Your task to perform on an android device: Go to calendar. Show me events next week Image 0: 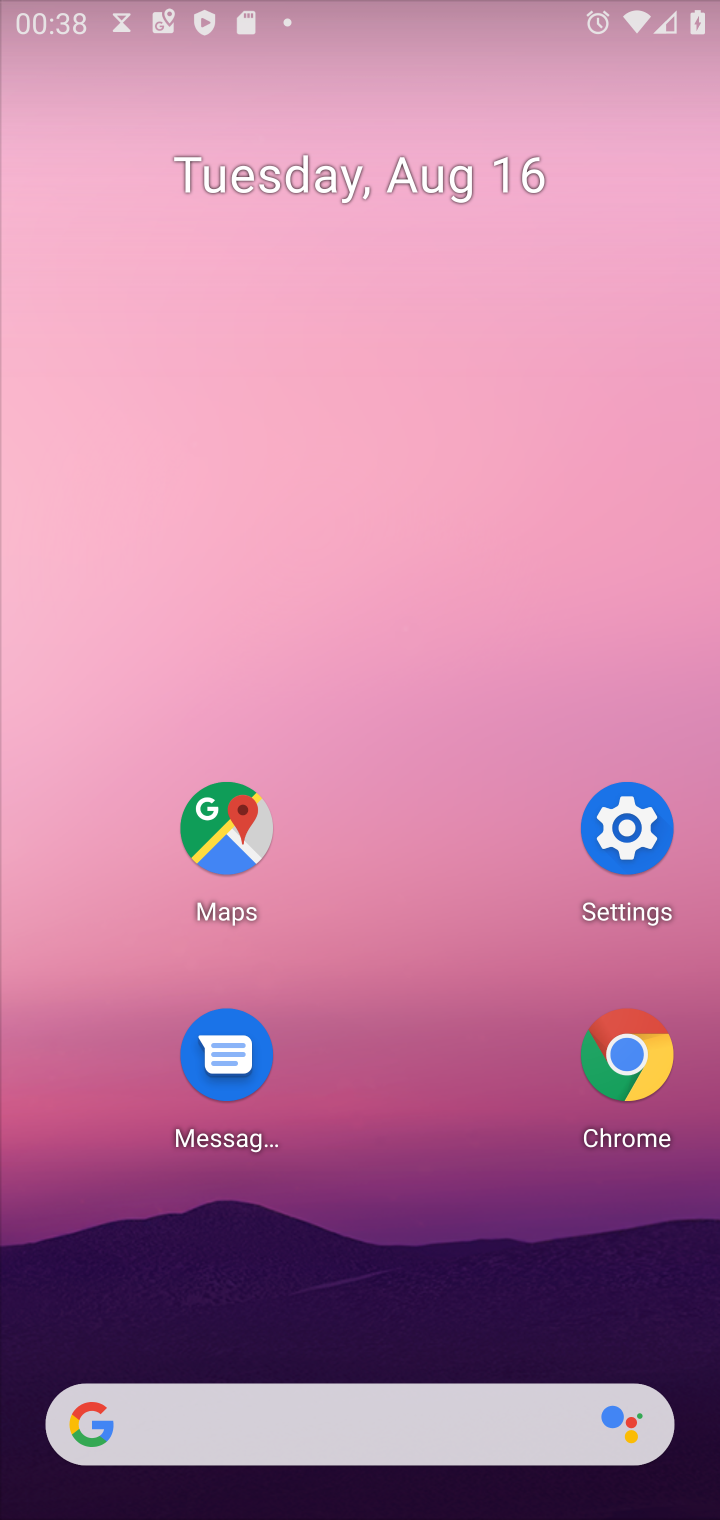
Step 0: press home button
Your task to perform on an android device: Go to calendar. Show me events next week Image 1: 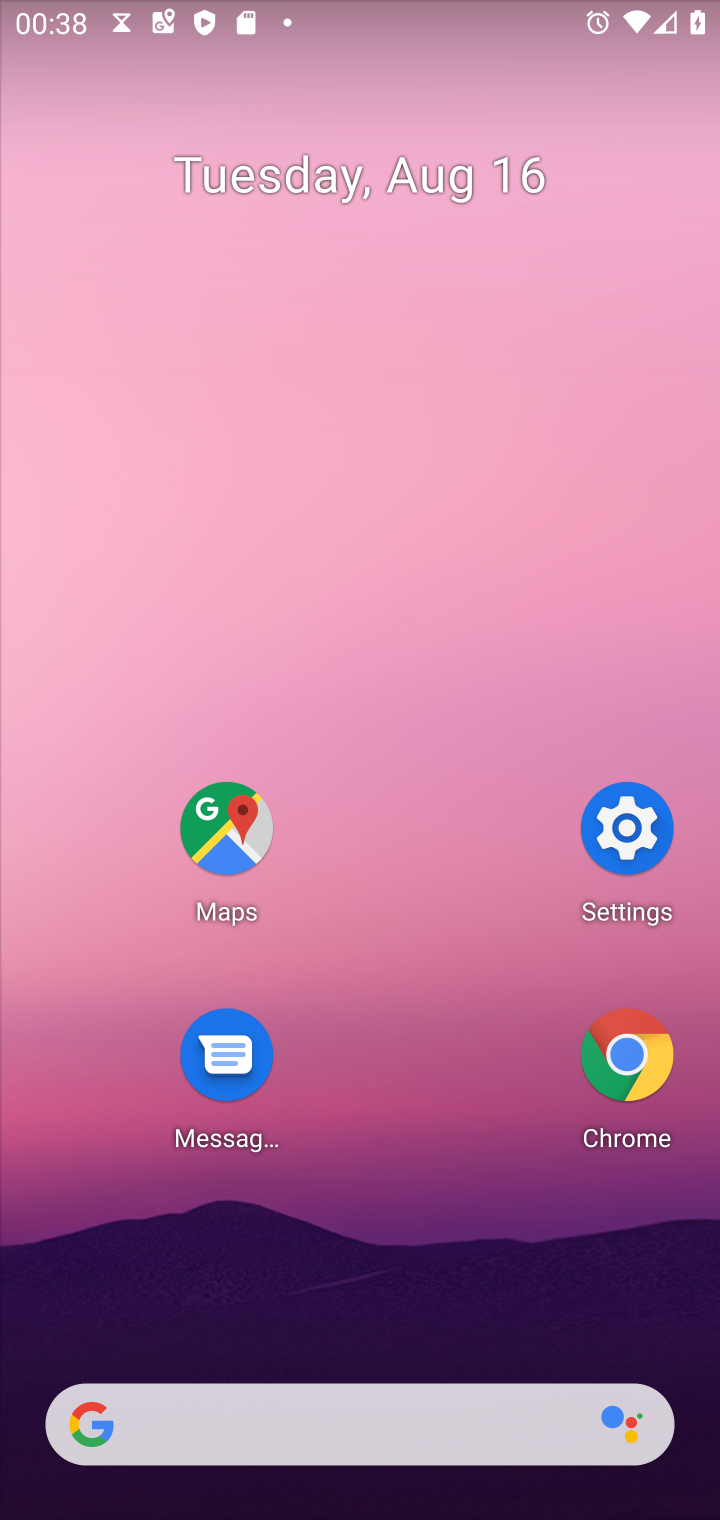
Step 1: drag from (332, 1262) to (520, 360)
Your task to perform on an android device: Go to calendar. Show me events next week Image 2: 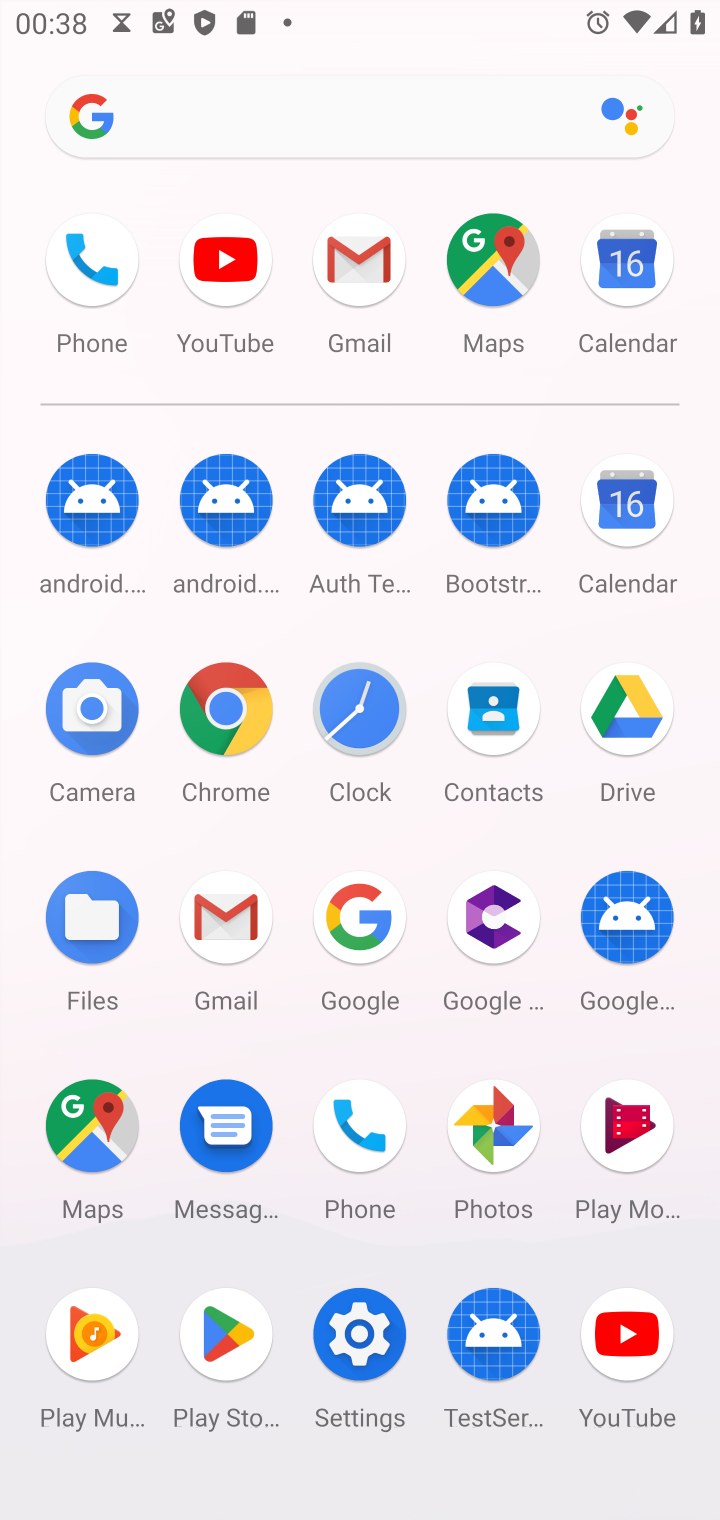
Step 2: click (616, 515)
Your task to perform on an android device: Go to calendar. Show me events next week Image 3: 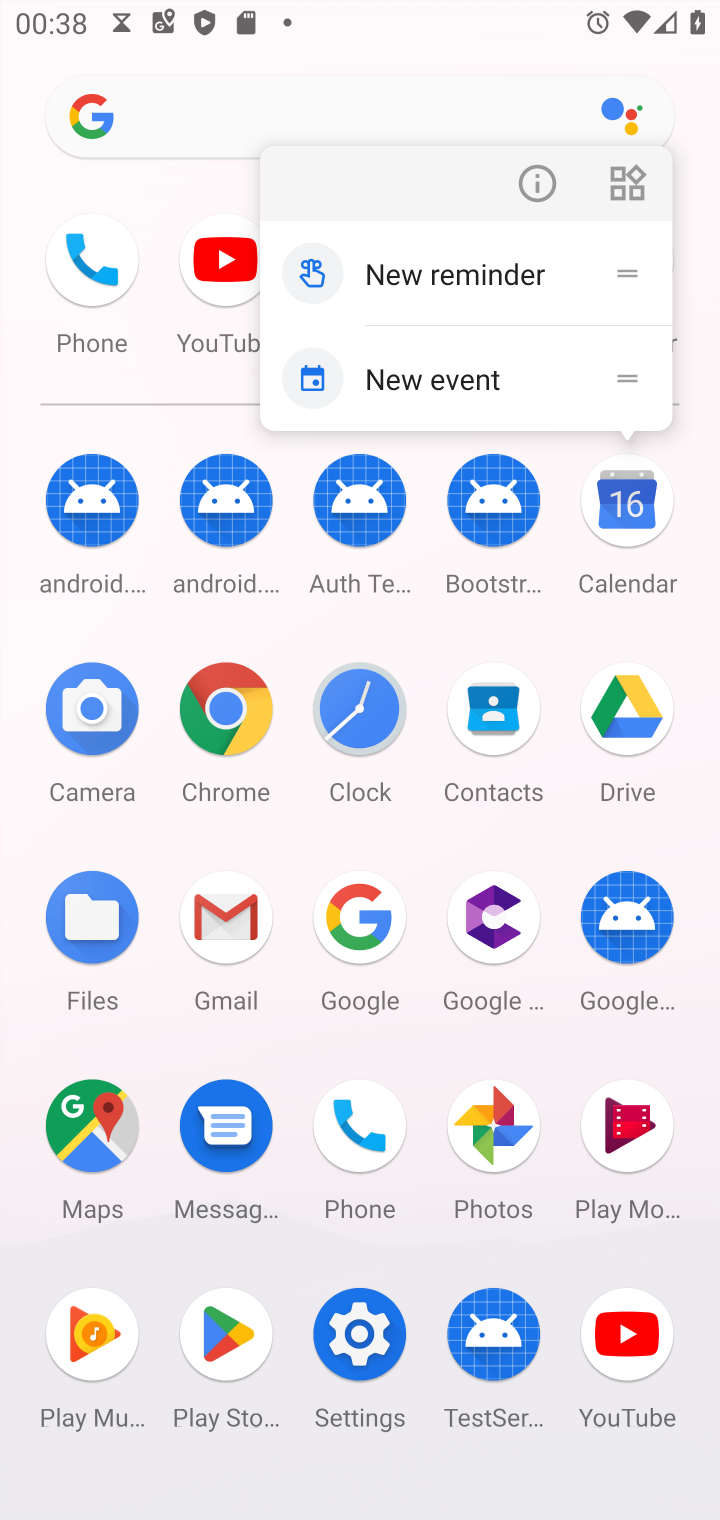
Step 3: click (616, 515)
Your task to perform on an android device: Go to calendar. Show me events next week Image 4: 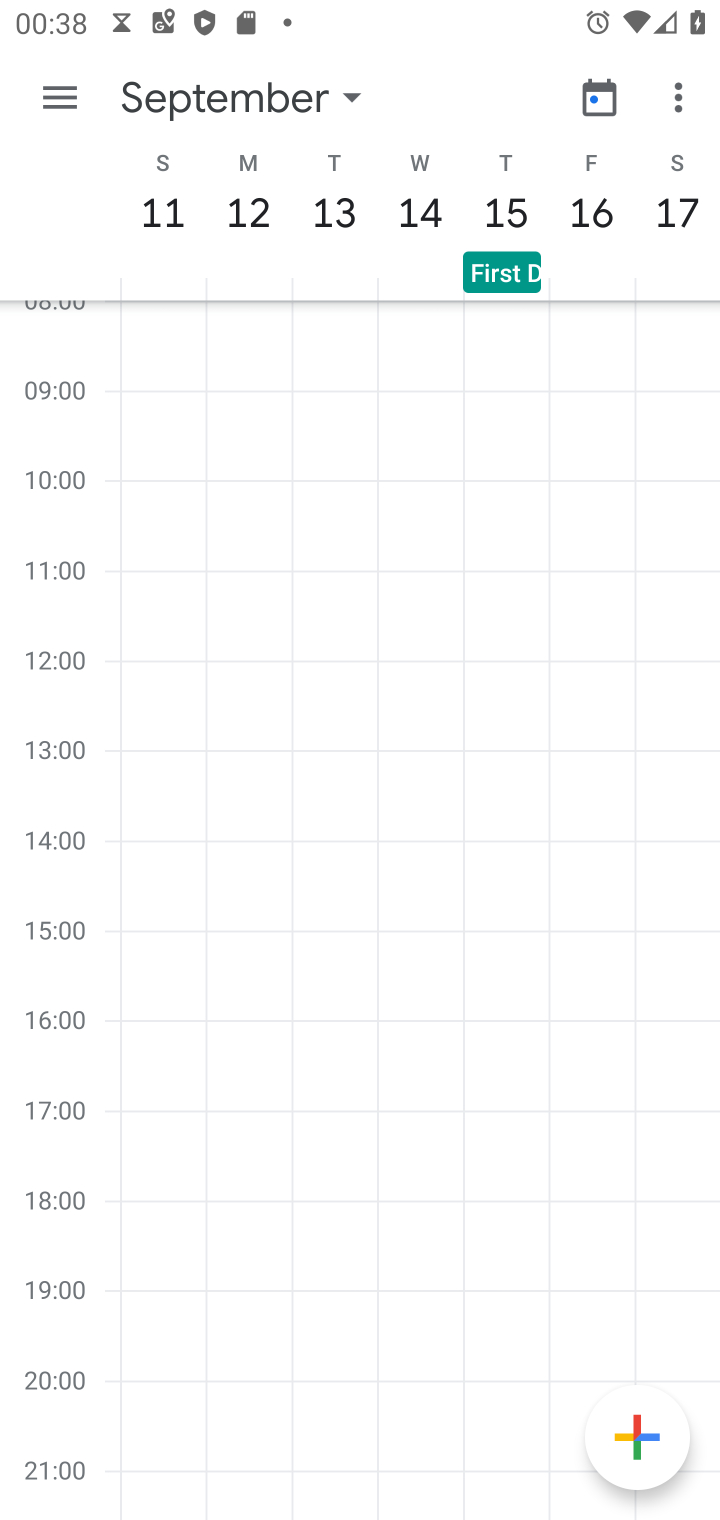
Step 4: click (221, 138)
Your task to perform on an android device: Go to calendar. Show me events next week Image 5: 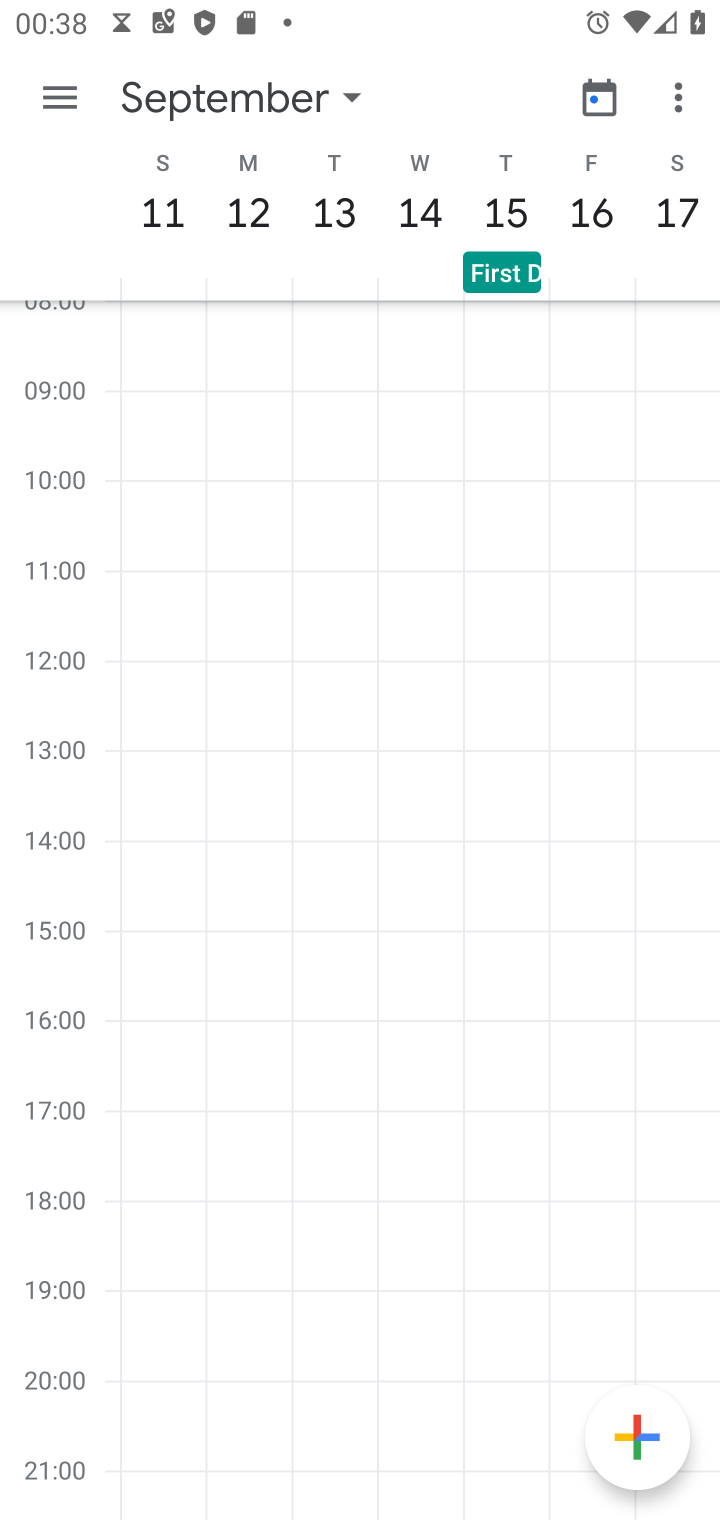
Step 5: click (283, 72)
Your task to perform on an android device: Go to calendar. Show me events next week Image 6: 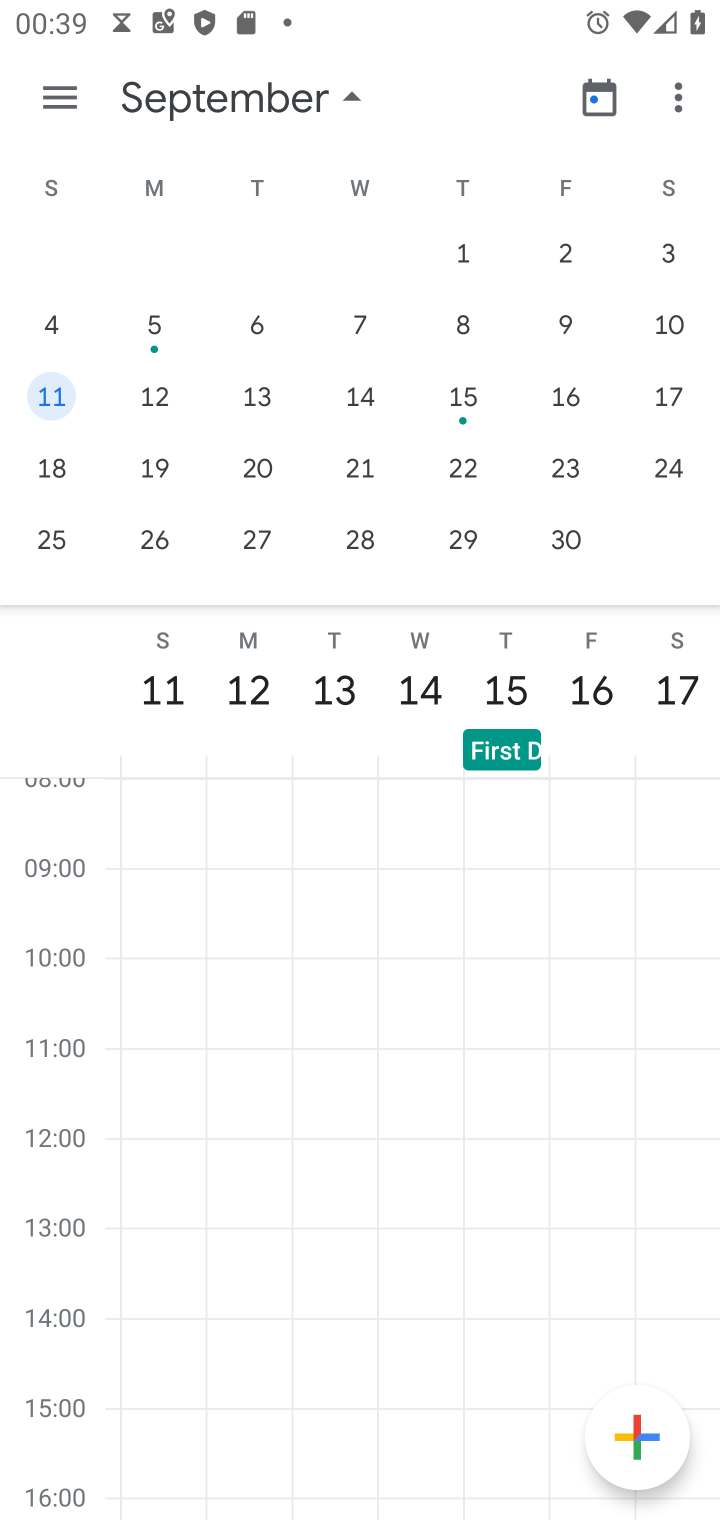
Step 6: drag from (128, 470) to (674, 549)
Your task to perform on an android device: Go to calendar. Show me events next week Image 7: 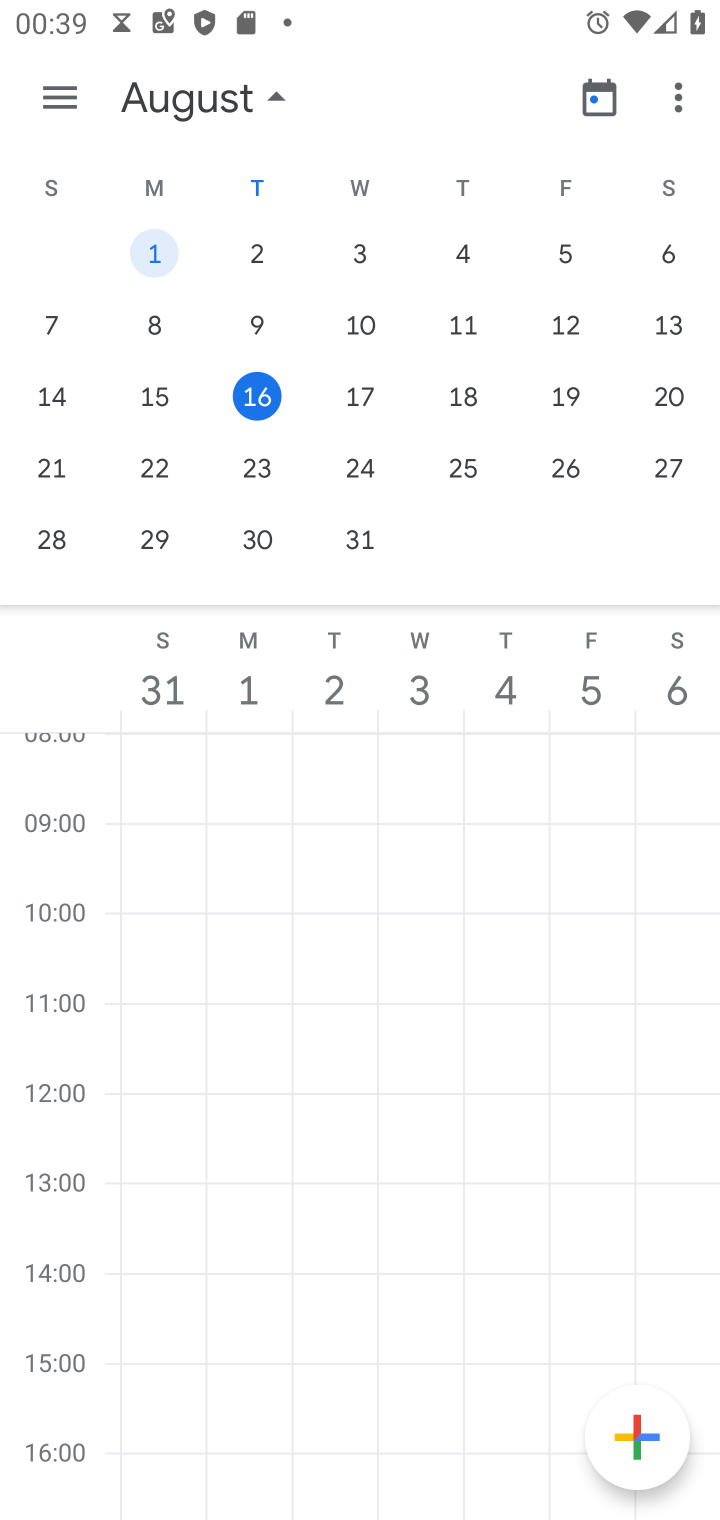
Step 7: click (42, 474)
Your task to perform on an android device: Go to calendar. Show me events next week Image 8: 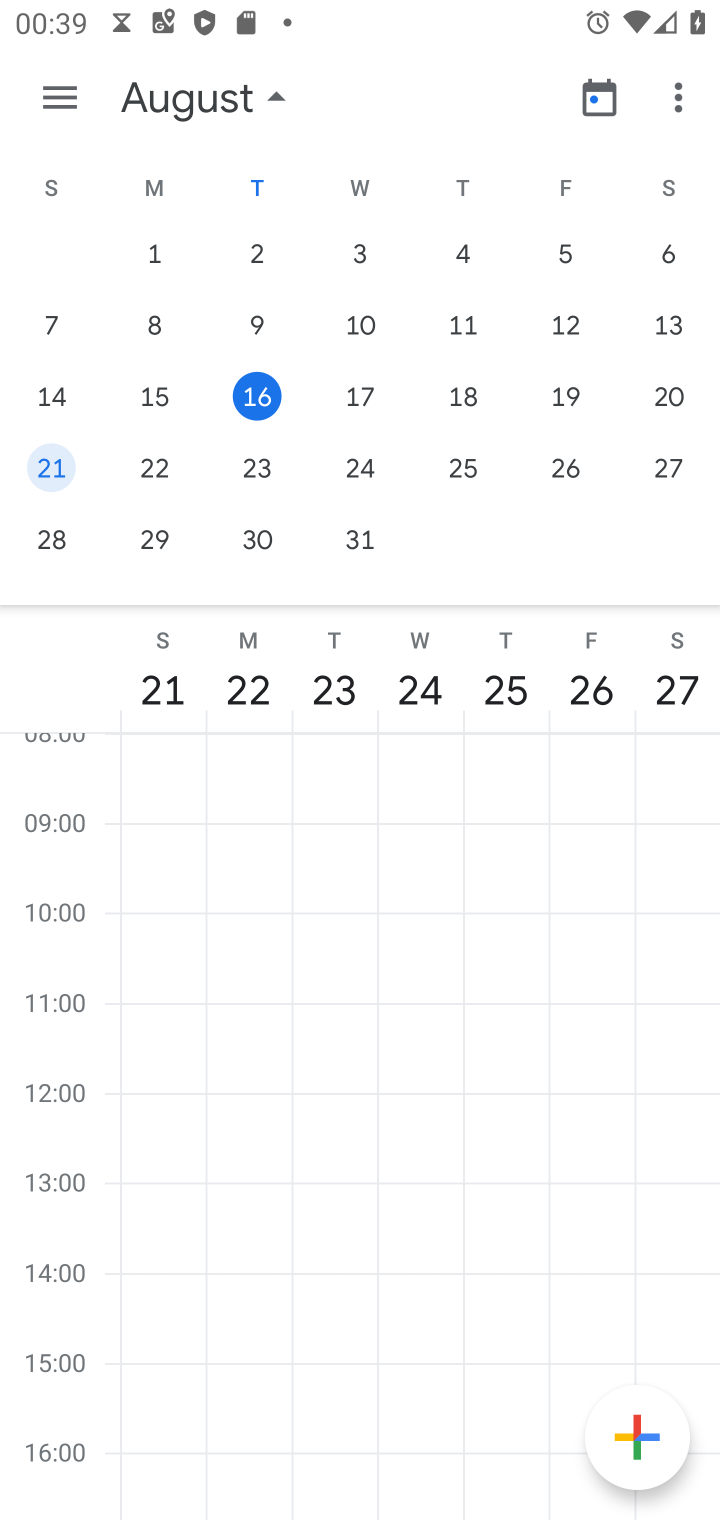
Step 8: click (71, 100)
Your task to perform on an android device: Go to calendar. Show me events next week Image 9: 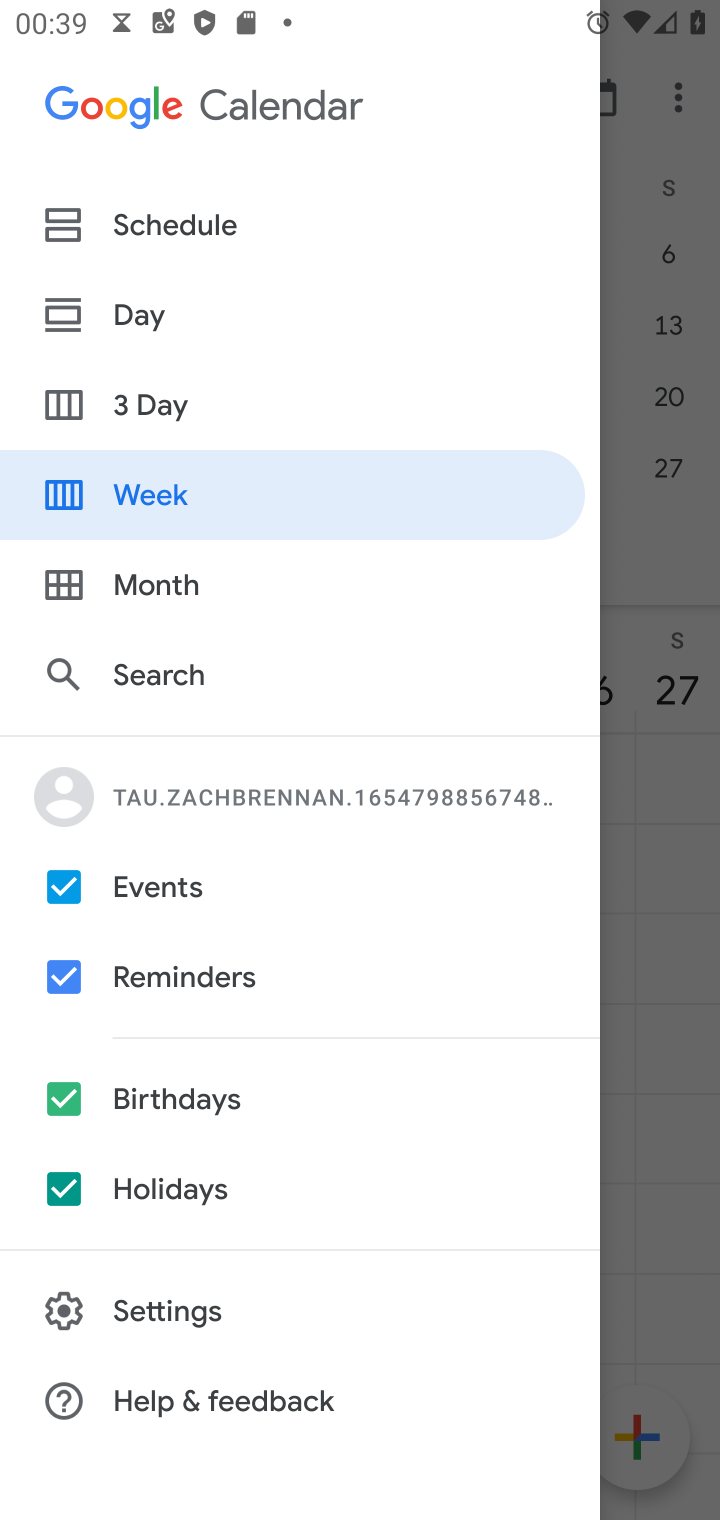
Step 9: click (169, 486)
Your task to perform on an android device: Go to calendar. Show me events next week Image 10: 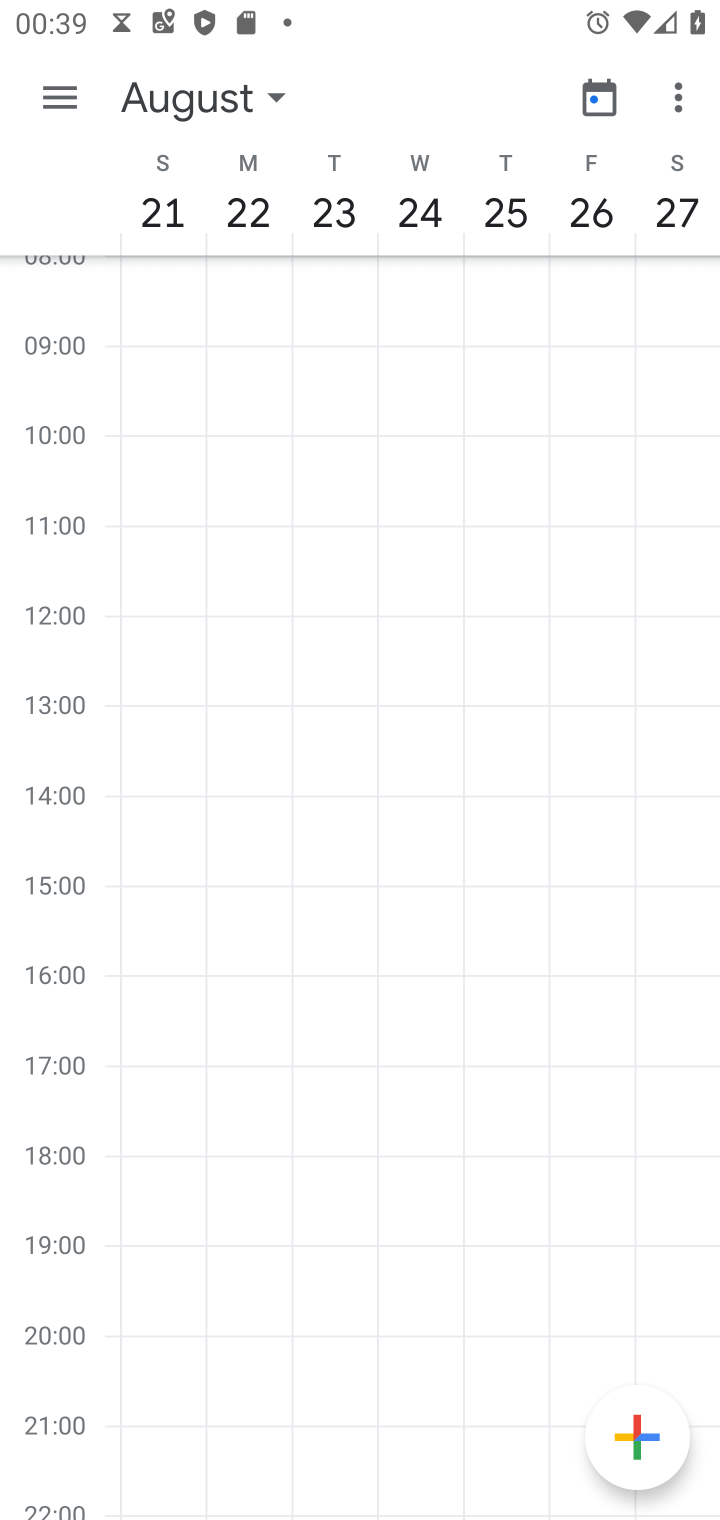
Step 10: click (42, 99)
Your task to perform on an android device: Go to calendar. Show me events next week Image 11: 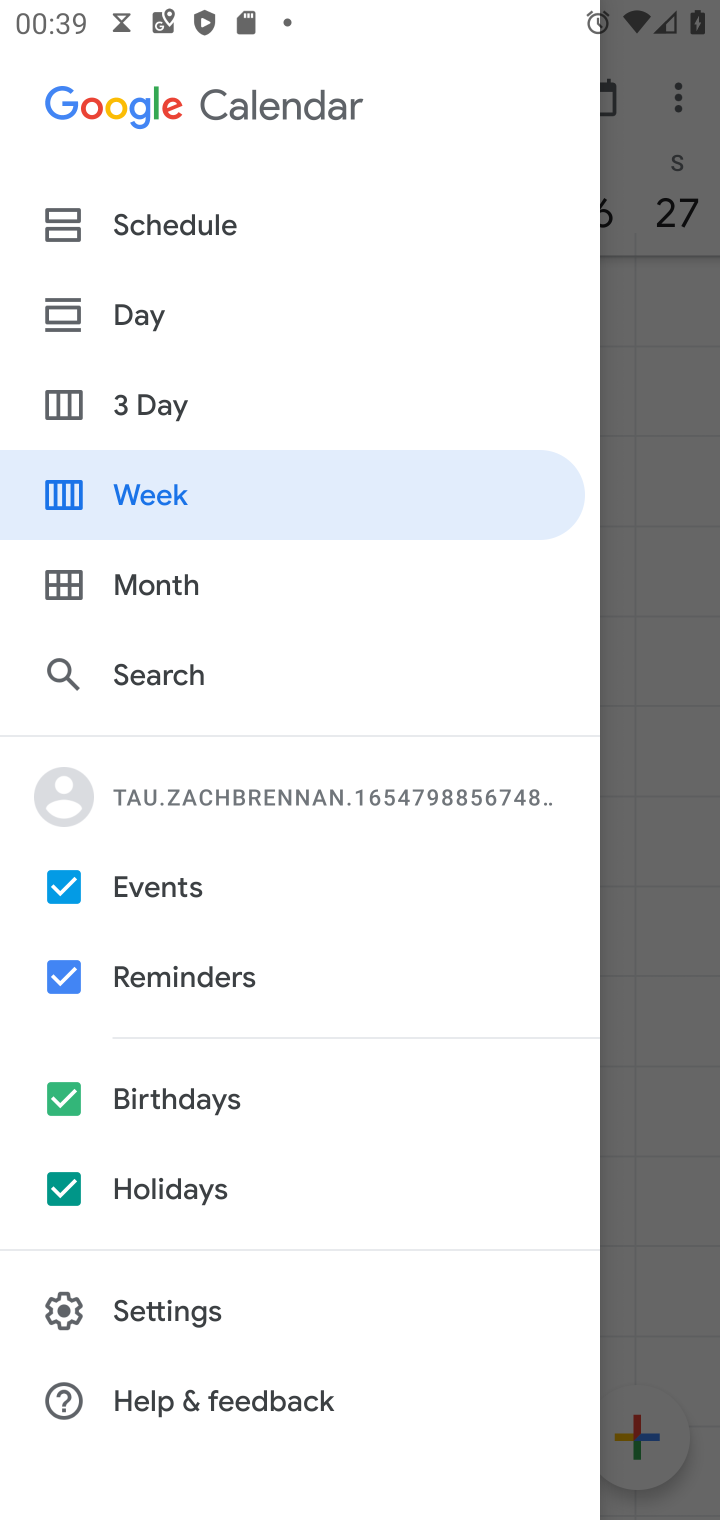
Step 11: click (149, 208)
Your task to perform on an android device: Go to calendar. Show me events next week Image 12: 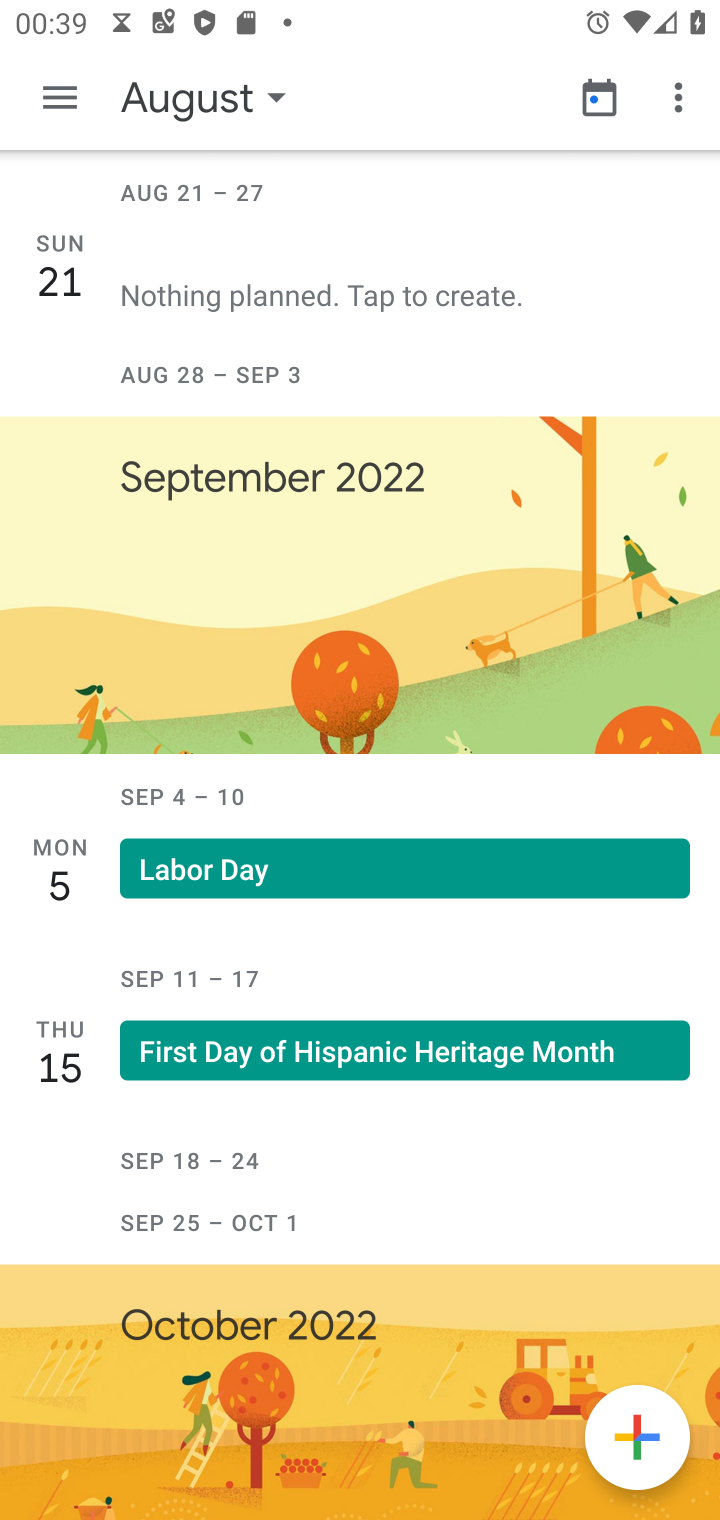
Step 12: task complete